Your task to perform on an android device: open a new tab in the chrome app Image 0: 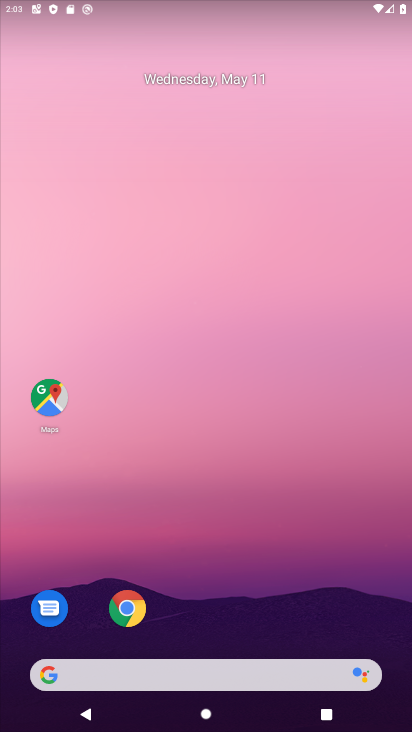
Step 0: click (128, 602)
Your task to perform on an android device: open a new tab in the chrome app Image 1: 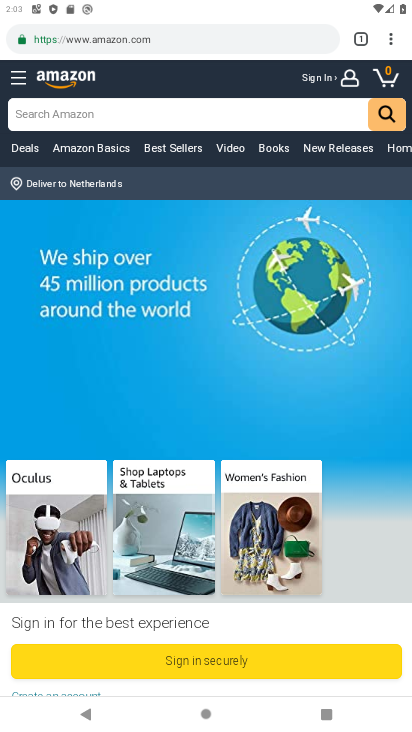
Step 1: click (198, 35)
Your task to perform on an android device: open a new tab in the chrome app Image 2: 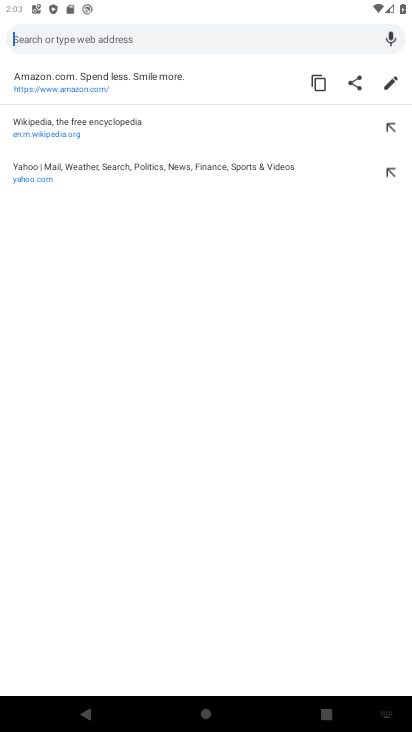
Step 2: press back button
Your task to perform on an android device: open a new tab in the chrome app Image 3: 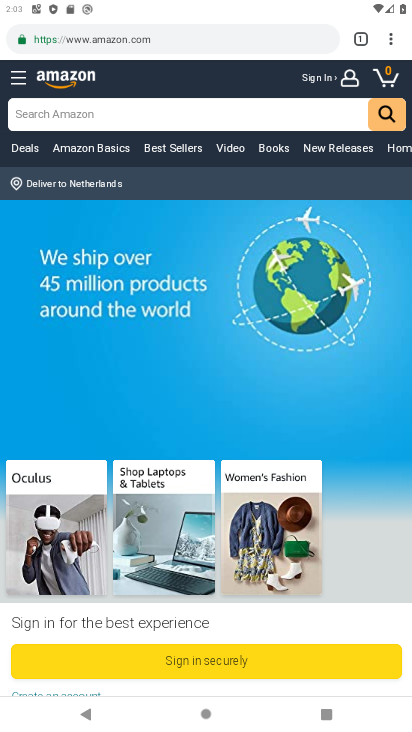
Step 3: click (353, 40)
Your task to perform on an android device: open a new tab in the chrome app Image 4: 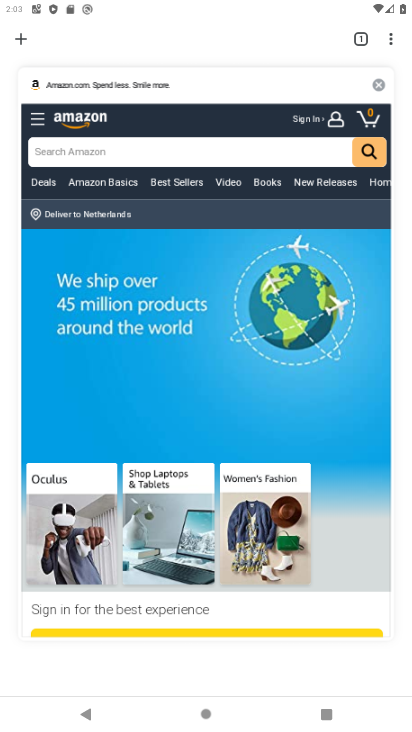
Step 4: click (384, 83)
Your task to perform on an android device: open a new tab in the chrome app Image 5: 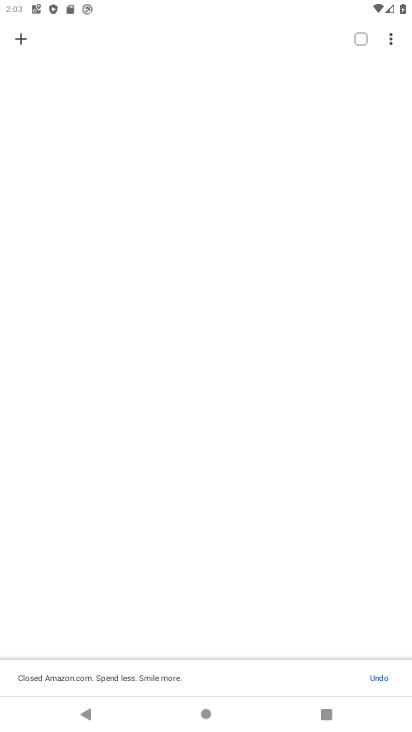
Step 5: click (18, 30)
Your task to perform on an android device: open a new tab in the chrome app Image 6: 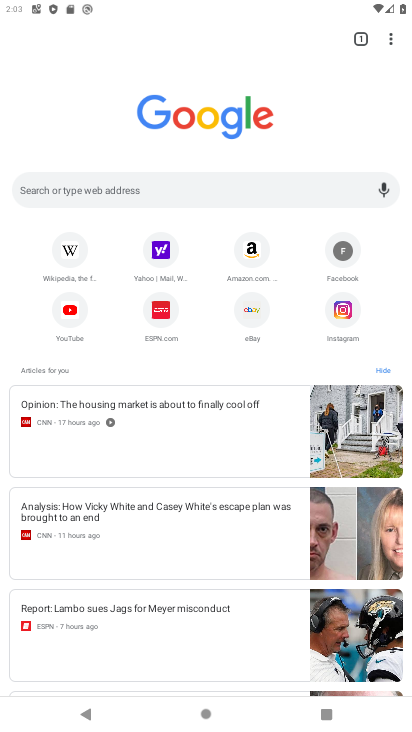
Step 6: click (122, 181)
Your task to perform on an android device: open a new tab in the chrome app Image 7: 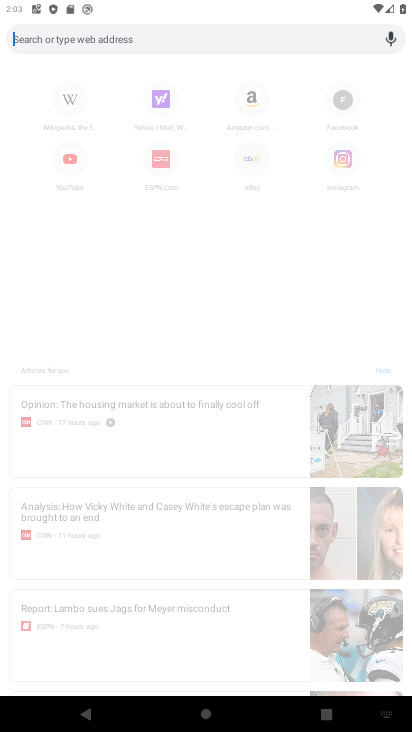
Step 7: click (266, 26)
Your task to perform on an android device: open a new tab in the chrome app Image 8: 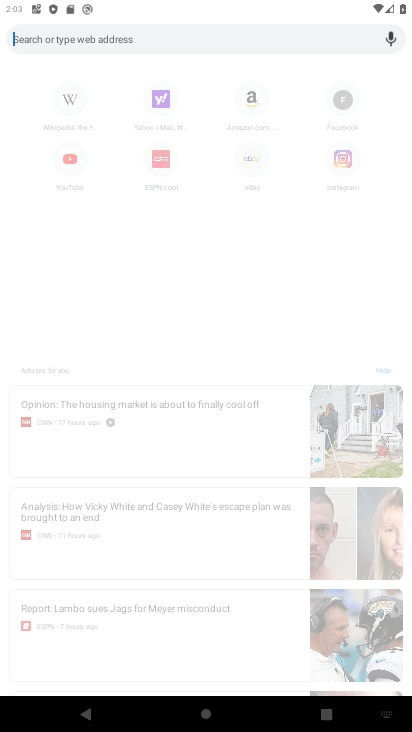
Step 8: click (267, 36)
Your task to perform on an android device: open a new tab in the chrome app Image 9: 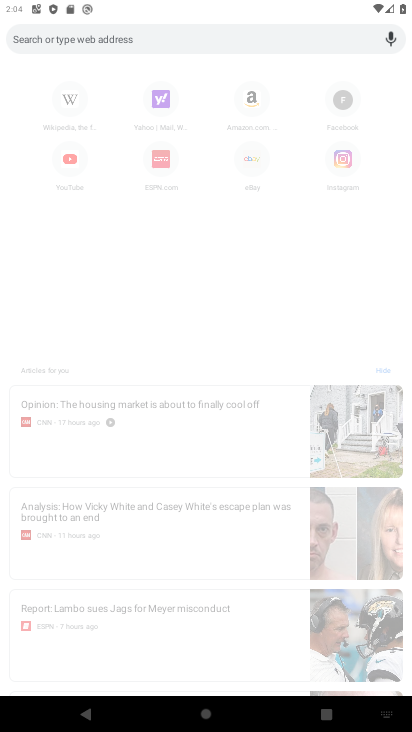
Step 9: press back button
Your task to perform on an android device: open a new tab in the chrome app Image 10: 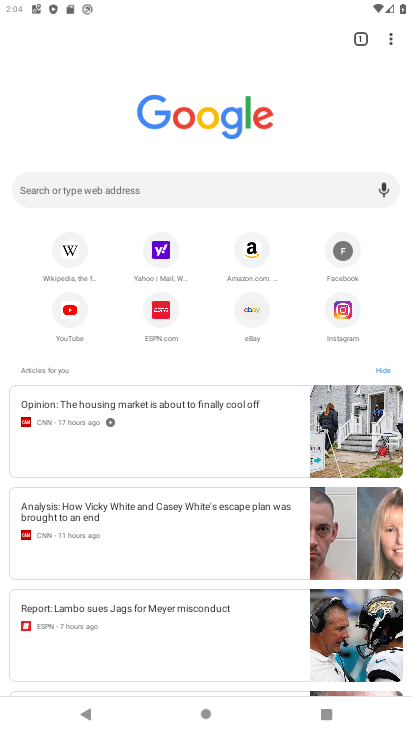
Step 10: click (388, 35)
Your task to perform on an android device: open a new tab in the chrome app Image 11: 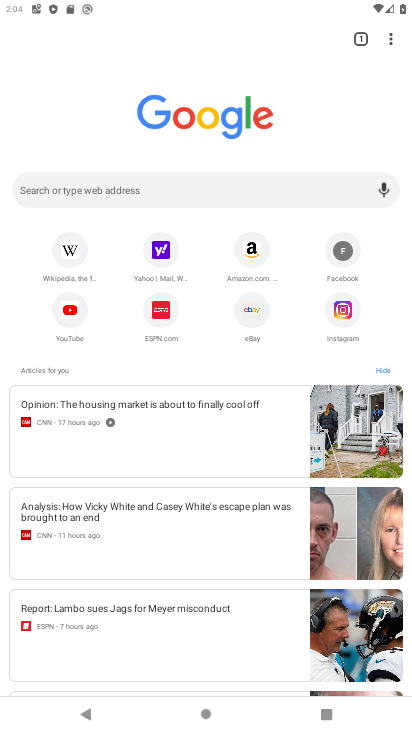
Step 11: click (382, 37)
Your task to perform on an android device: open a new tab in the chrome app Image 12: 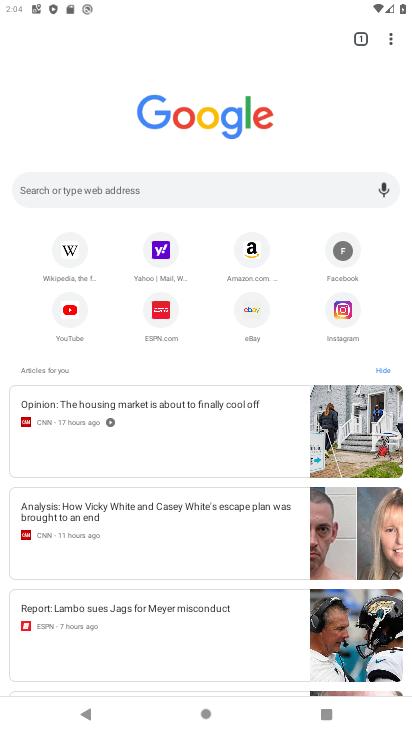
Step 12: click (389, 49)
Your task to perform on an android device: open a new tab in the chrome app Image 13: 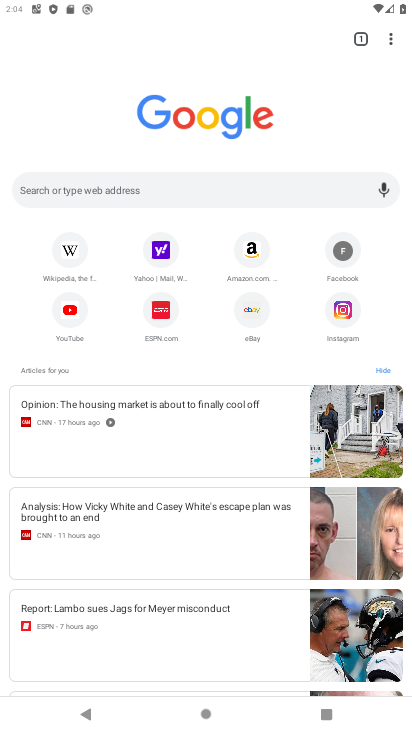
Step 13: click (389, 49)
Your task to perform on an android device: open a new tab in the chrome app Image 14: 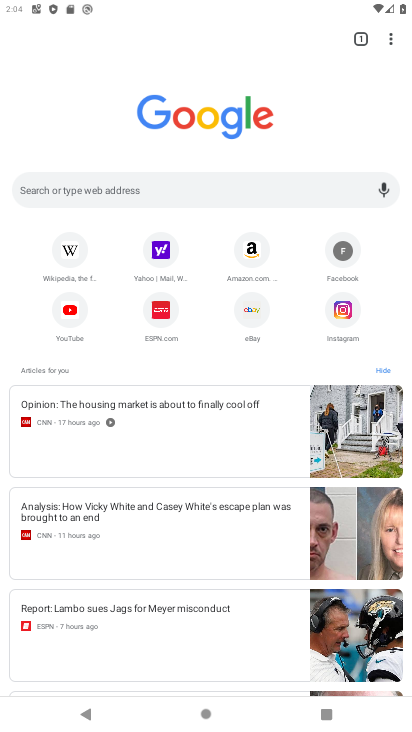
Step 14: click (389, 49)
Your task to perform on an android device: open a new tab in the chrome app Image 15: 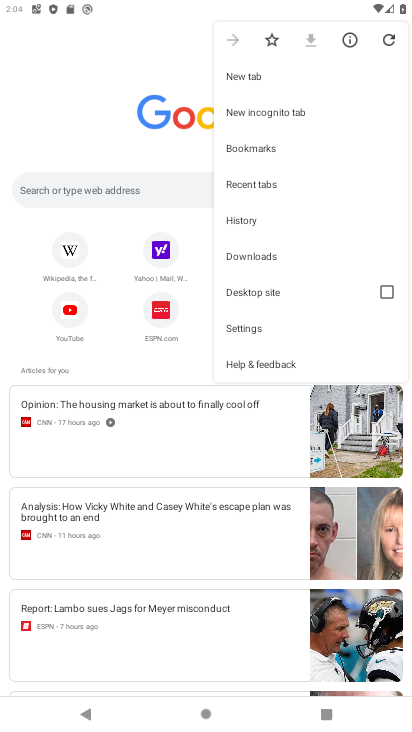
Step 15: click (253, 82)
Your task to perform on an android device: open a new tab in the chrome app Image 16: 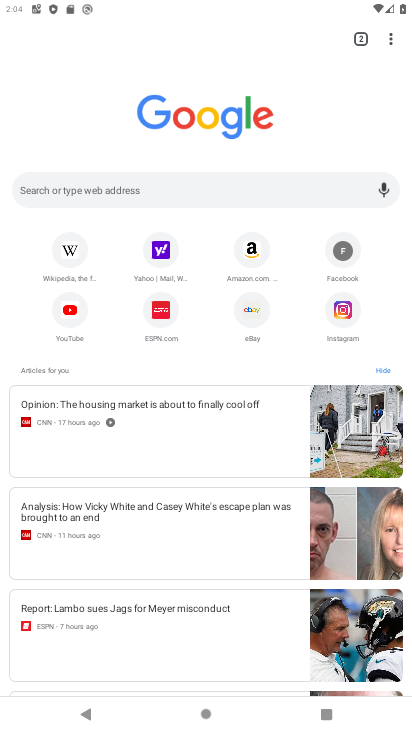
Step 16: task complete